Your task to perform on an android device: Open Amazon Image 0: 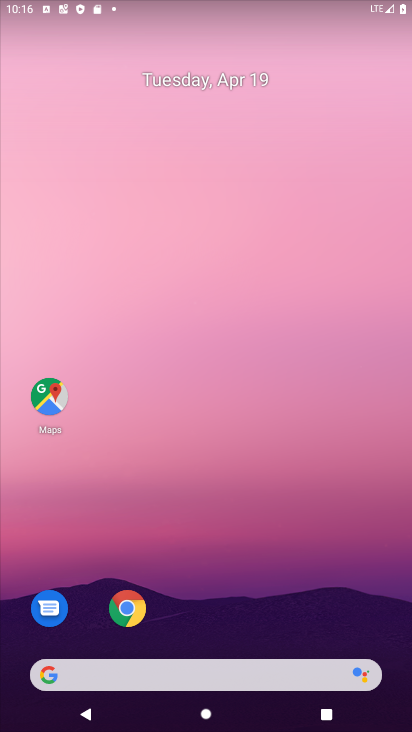
Step 0: click (125, 609)
Your task to perform on an android device: Open Amazon Image 1: 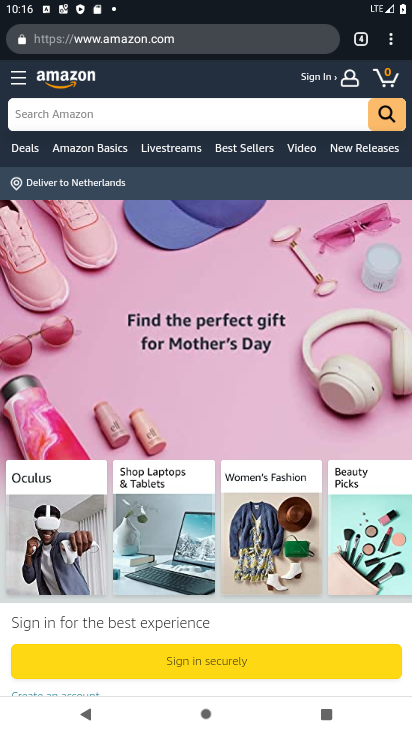
Step 1: task complete